Your task to perform on an android device: Search for vegetarian restaurants on Maps Image 0: 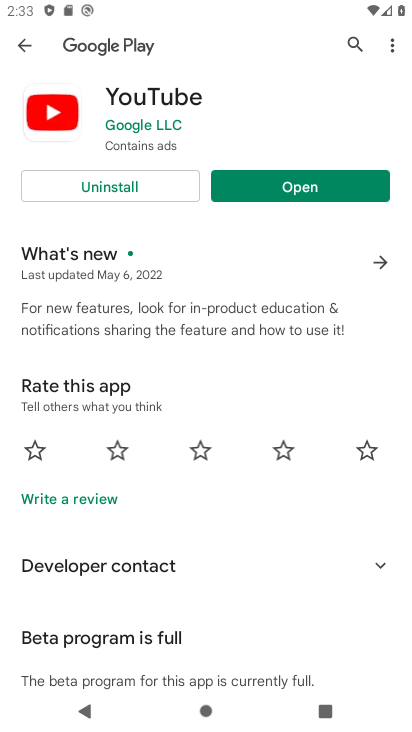
Step 0: press home button
Your task to perform on an android device: Search for vegetarian restaurants on Maps Image 1: 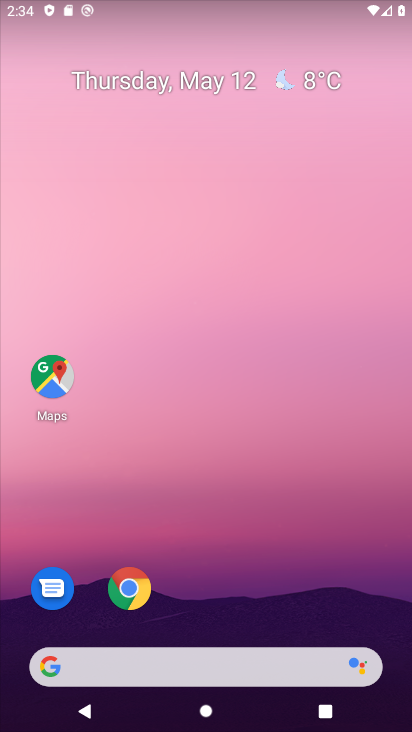
Step 1: click (59, 387)
Your task to perform on an android device: Search for vegetarian restaurants on Maps Image 2: 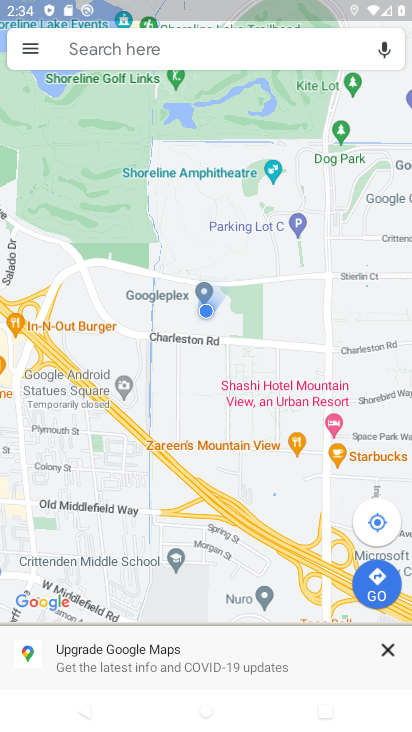
Step 2: click (215, 37)
Your task to perform on an android device: Search for vegetarian restaurants on Maps Image 3: 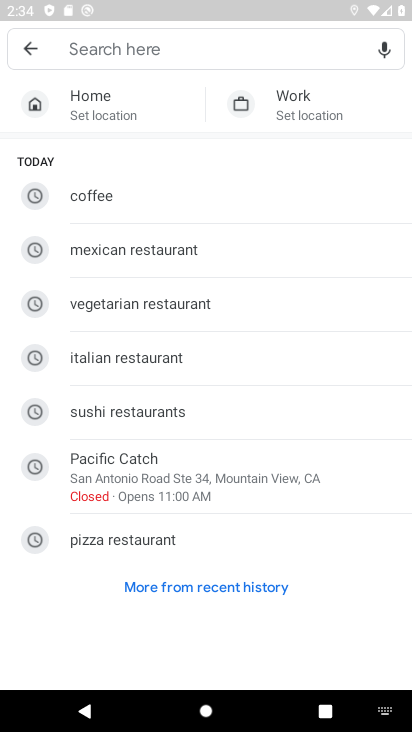
Step 3: click (247, 308)
Your task to perform on an android device: Search for vegetarian restaurants on Maps Image 4: 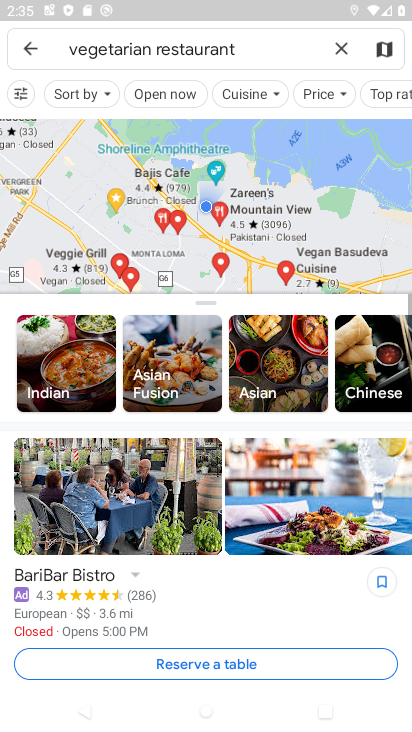
Step 4: task complete